Your task to perform on an android device: change your default location settings in chrome Image 0: 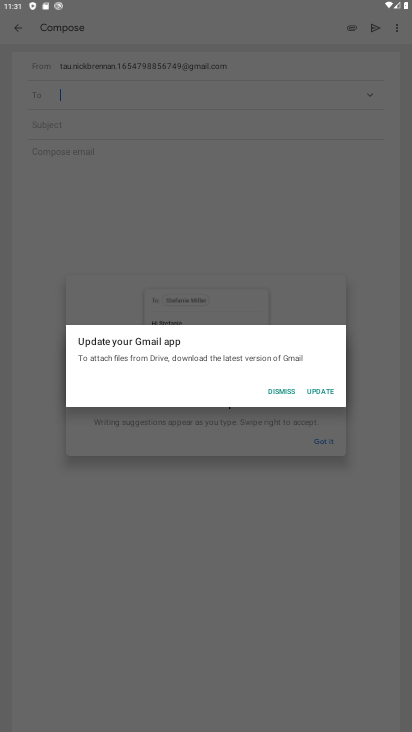
Step 0: press home button
Your task to perform on an android device: change your default location settings in chrome Image 1: 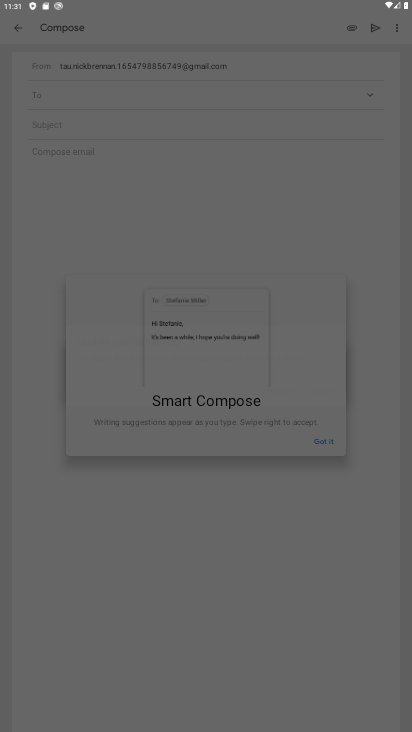
Step 1: drag from (205, 282) to (218, 114)
Your task to perform on an android device: change your default location settings in chrome Image 2: 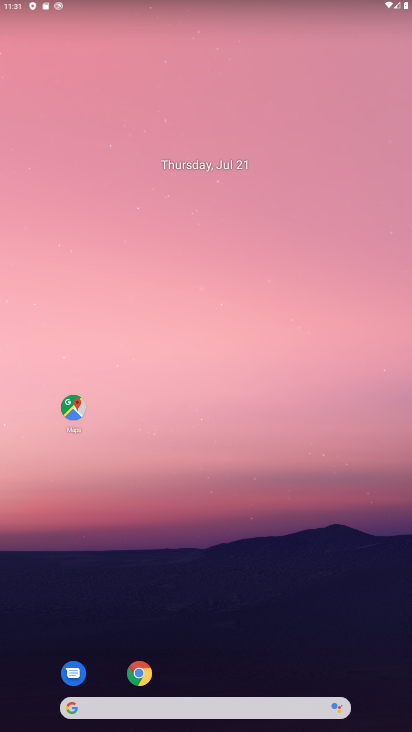
Step 2: drag from (192, 600) to (228, 63)
Your task to perform on an android device: change your default location settings in chrome Image 3: 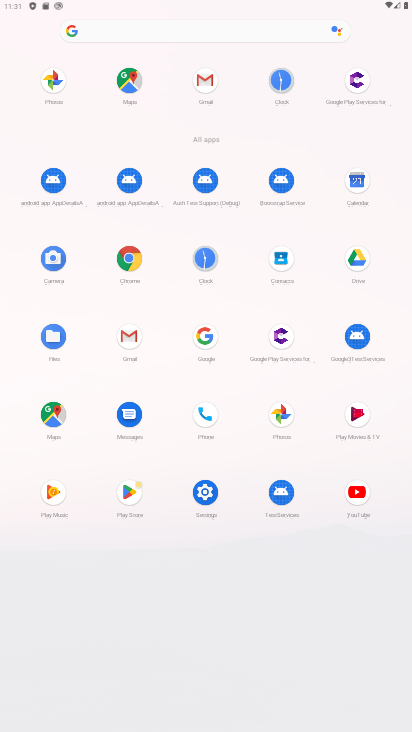
Step 3: click (124, 254)
Your task to perform on an android device: change your default location settings in chrome Image 4: 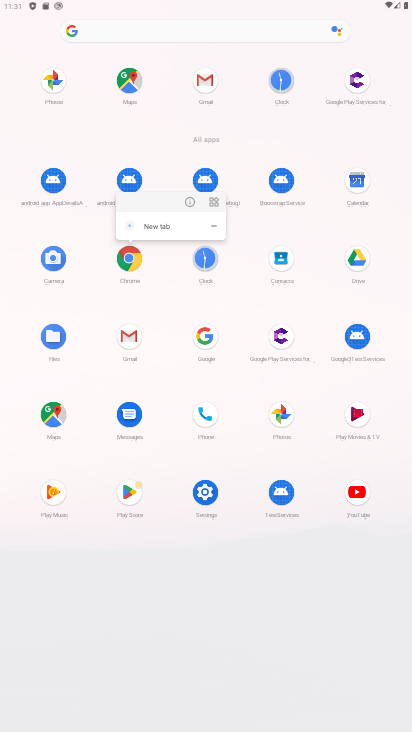
Step 4: click (188, 196)
Your task to perform on an android device: change your default location settings in chrome Image 5: 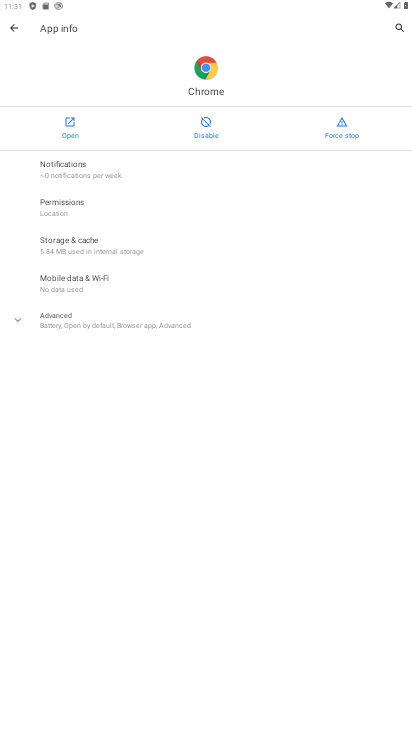
Step 5: click (79, 128)
Your task to perform on an android device: change your default location settings in chrome Image 6: 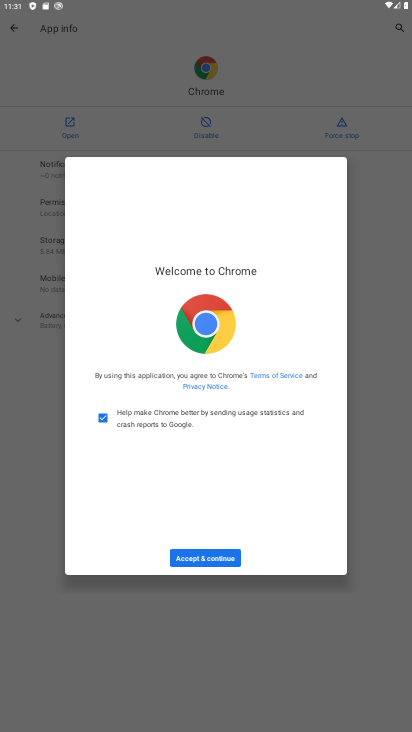
Step 6: click (214, 556)
Your task to perform on an android device: change your default location settings in chrome Image 7: 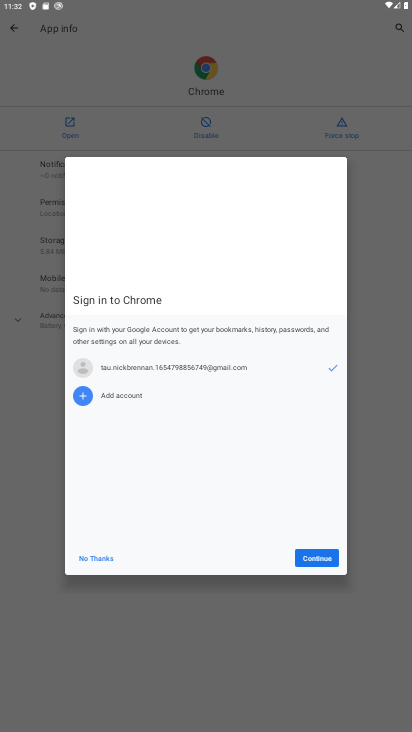
Step 7: click (317, 561)
Your task to perform on an android device: change your default location settings in chrome Image 8: 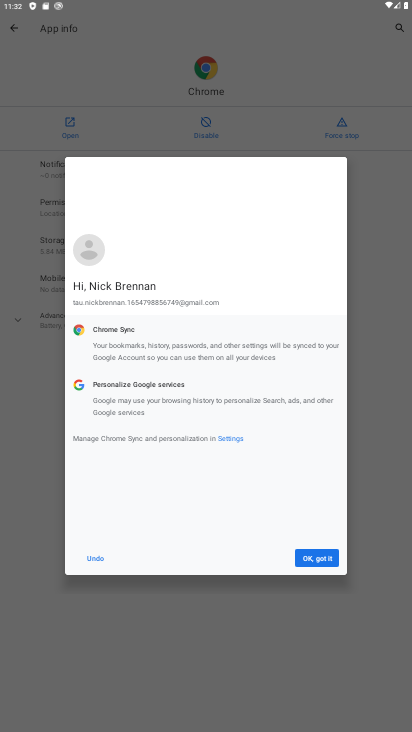
Step 8: click (317, 560)
Your task to perform on an android device: change your default location settings in chrome Image 9: 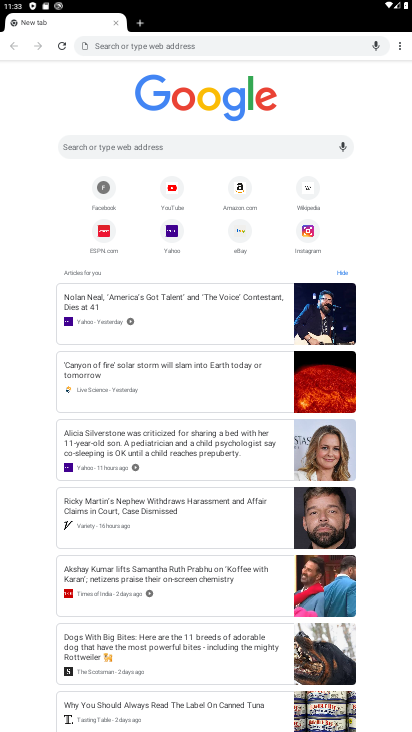
Step 9: drag from (223, 636) to (244, 694)
Your task to perform on an android device: change your default location settings in chrome Image 10: 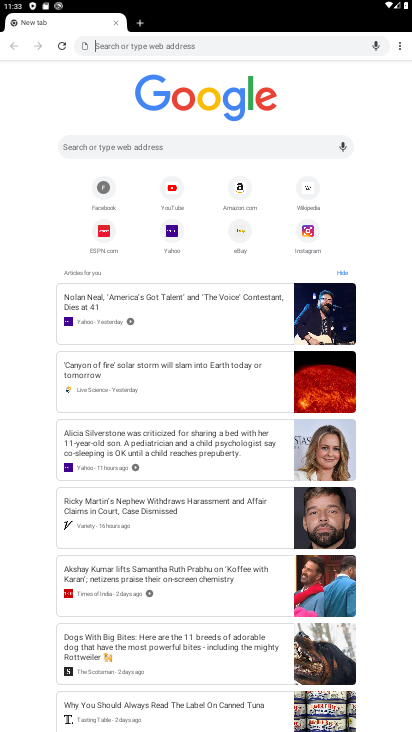
Step 10: drag from (397, 51) to (310, 209)
Your task to perform on an android device: change your default location settings in chrome Image 11: 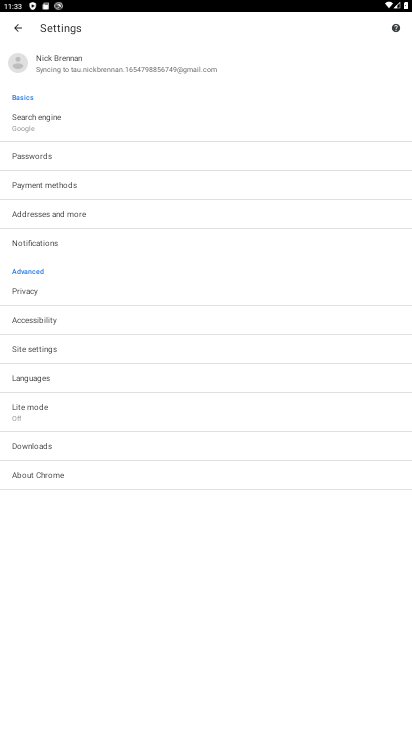
Step 11: click (49, 338)
Your task to perform on an android device: change your default location settings in chrome Image 12: 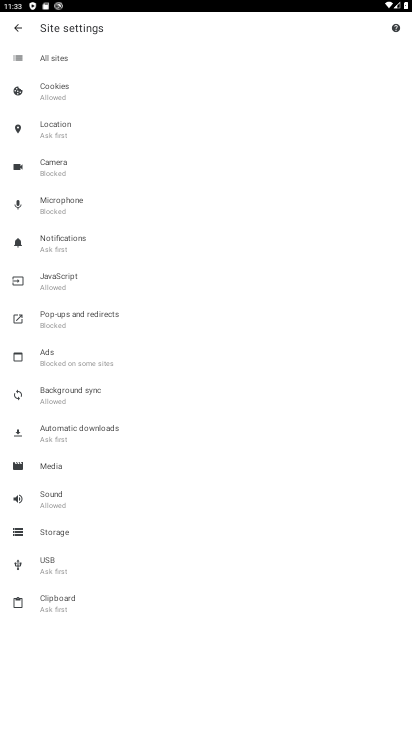
Step 12: click (67, 124)
Your task to perform on an android device: change your default location settings in chrome Image 13: 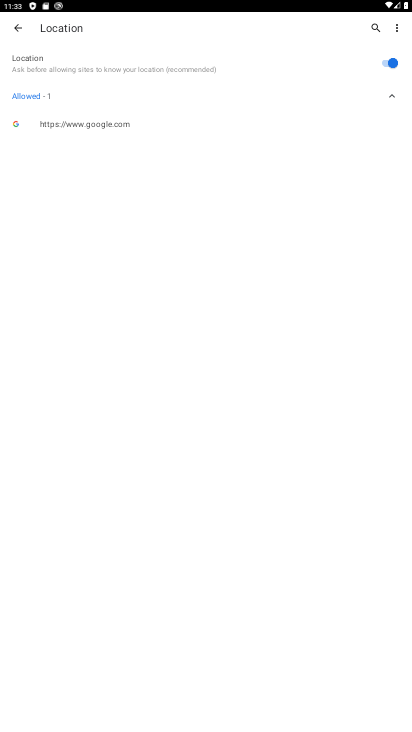
Step 13: drag from (182, 489) to (244, 65)
Your task to perform on an android device: change your default location settings in chrome Image 14: 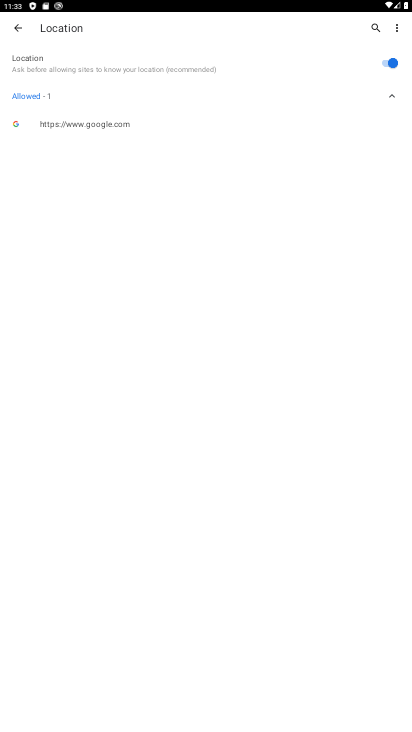
Step 14: drag from (179, 375) to (213, 43)
Your task to perform on an android device: change your default location settings in chrome Image 15: 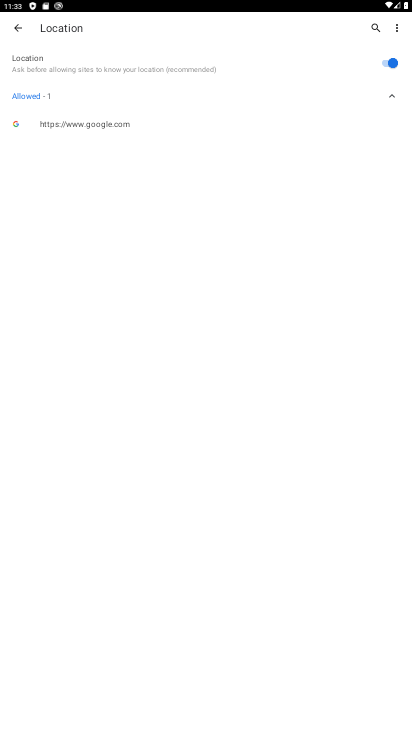
Step 15: click (389, 59)
Your task to perform on an android device: change your default location settings in chrome Image 16: 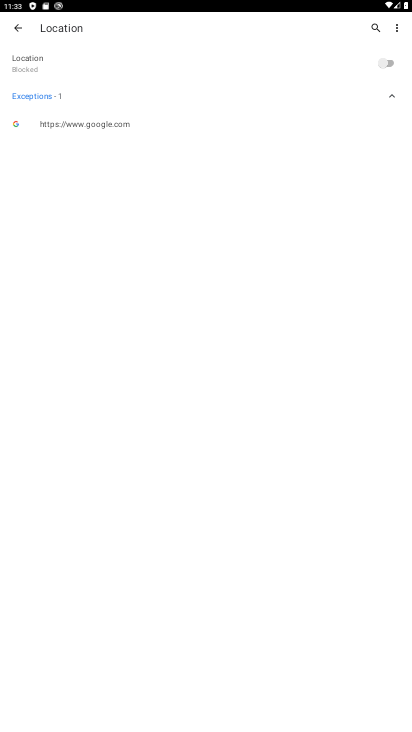
Step 16: task complete